Your task to perform on an android device: Is it going to rain tomorrow? Image 0: 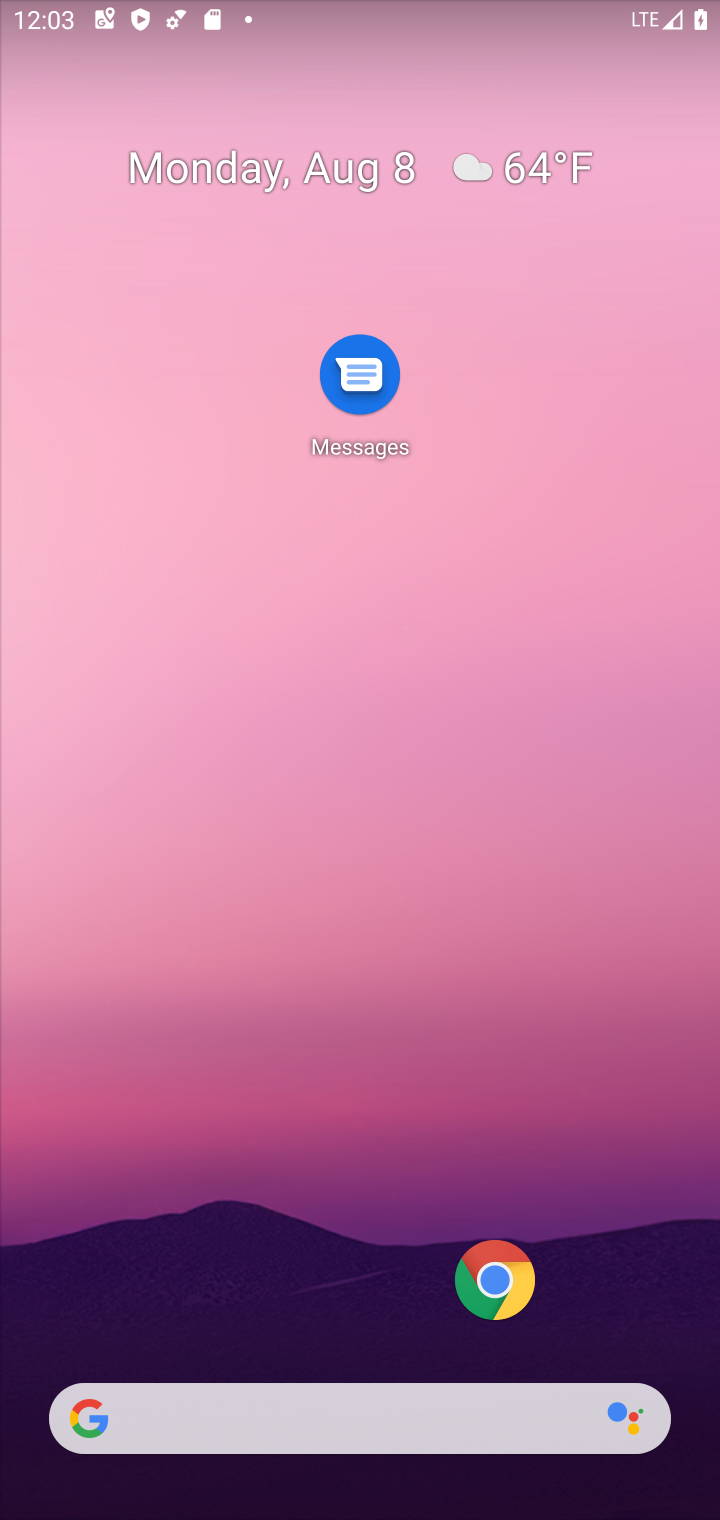
Step 0: click (267, 1378)
Your task to perform on an android device: Is it going to rain tomorrow? Image 1: 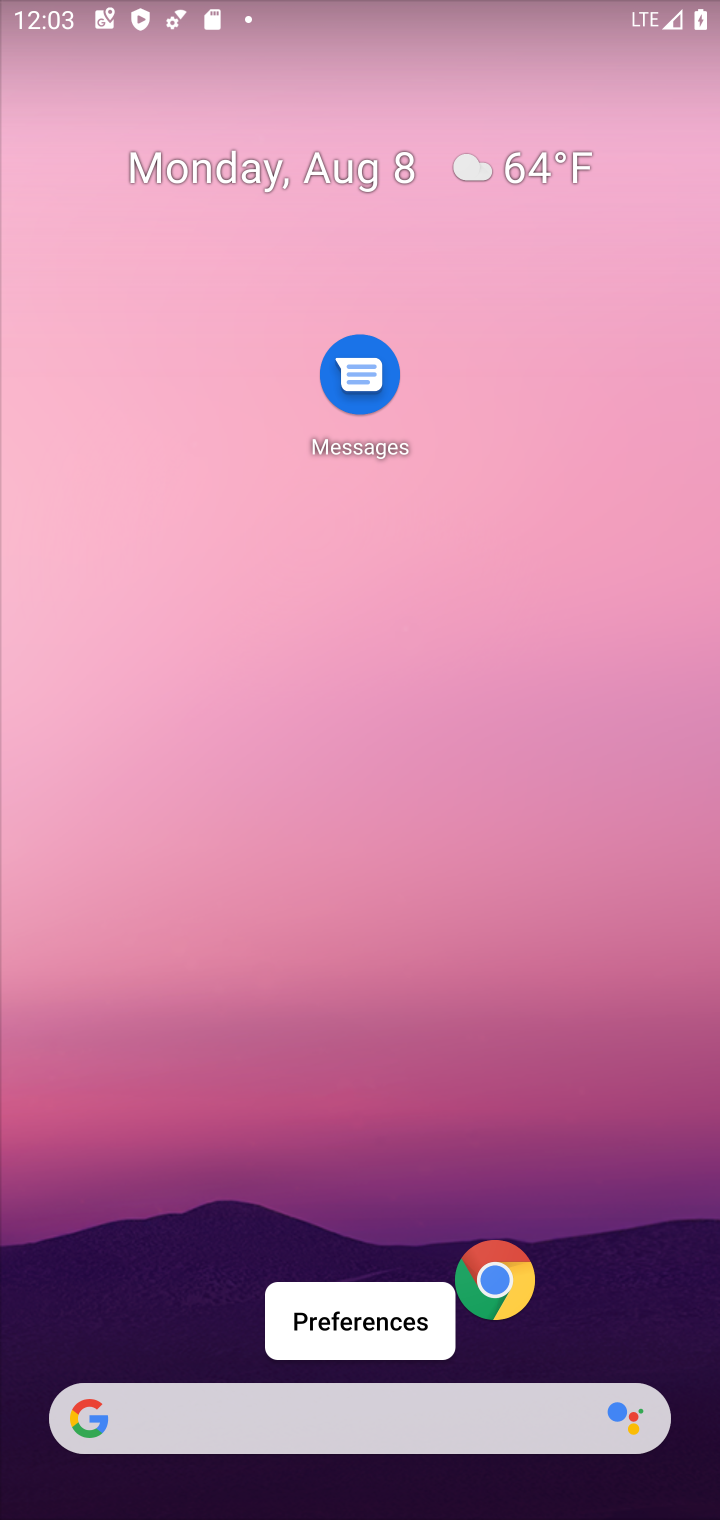
Step 1: click (331, 1447)
Your task to perform on an android device: Is it going to rain tomorrow? Image 2: 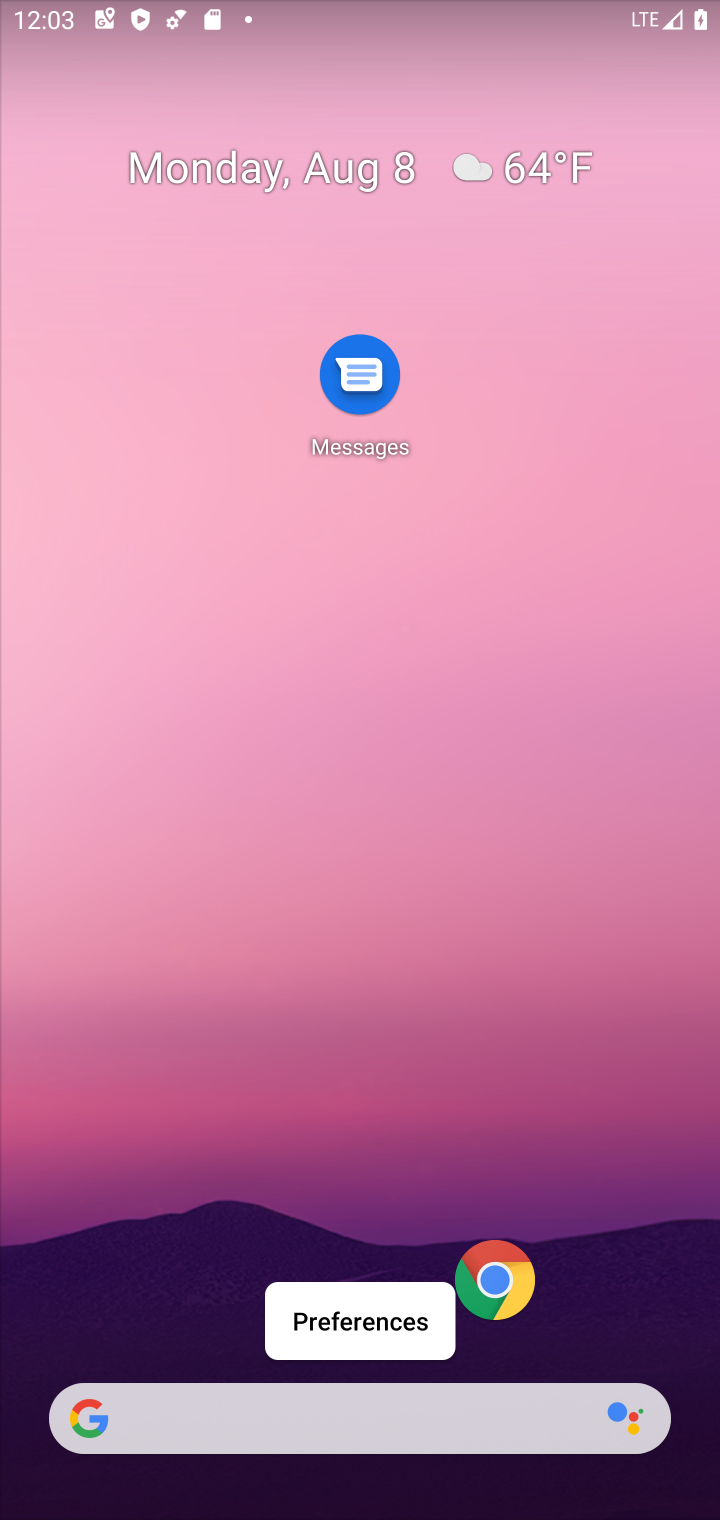
Step 2: click (419, 1479)
Your task to perform on an android device: Is it going to rain tomorrow? Image 3: 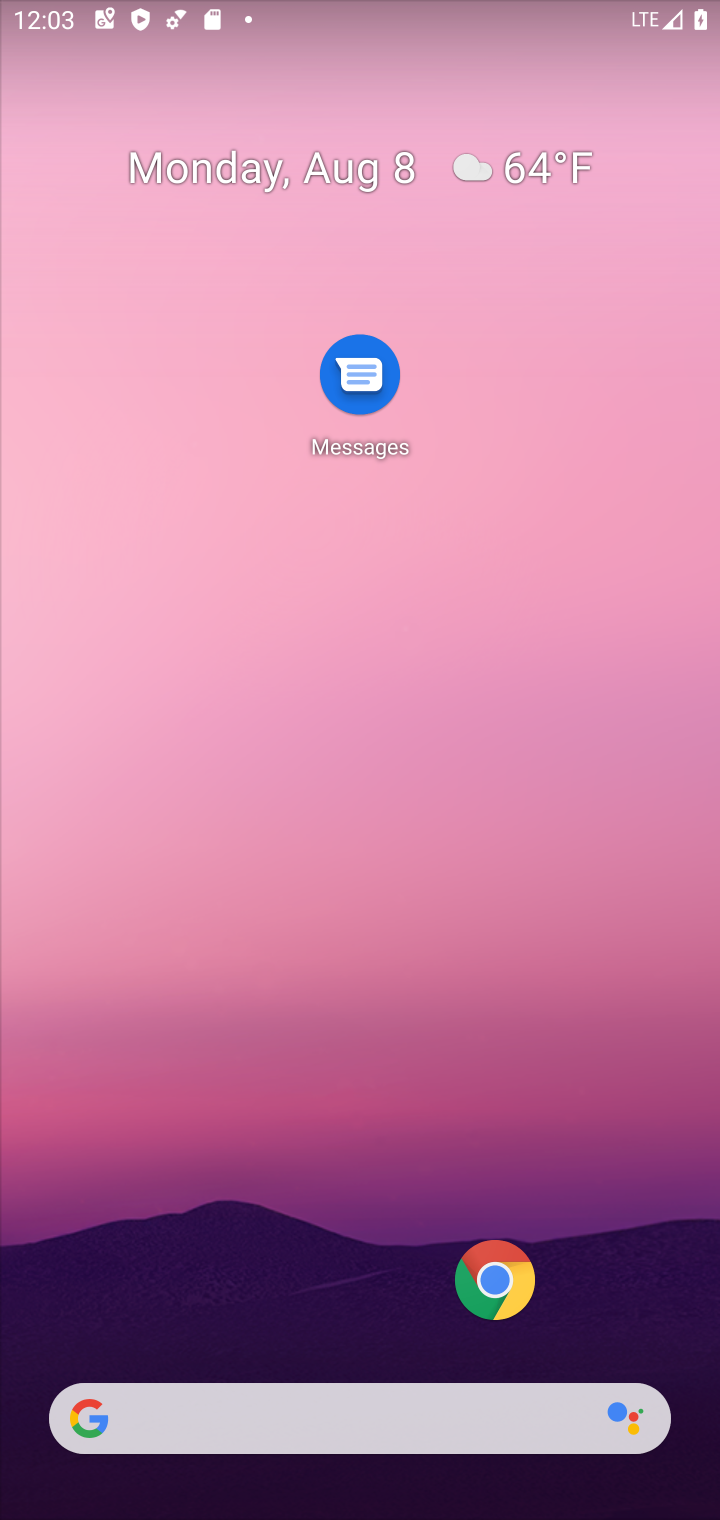
Step 3: click (259, 1429)
Your task to perform on an android device: Is it going to rain tomorrow? Image 4: 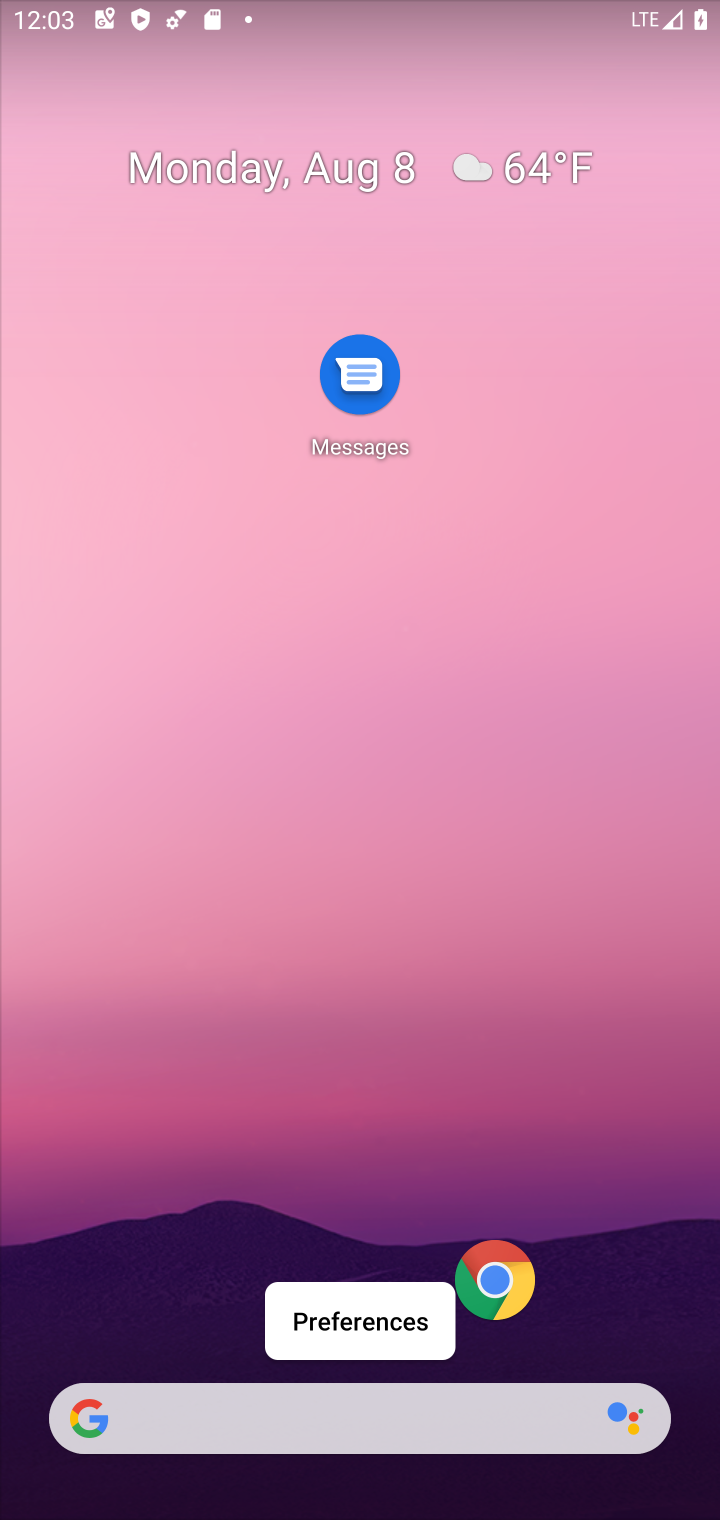
Step 4: click (216, 1442)
Your task to perform on an android device: Is it going to rain tomorrow? Image 5: 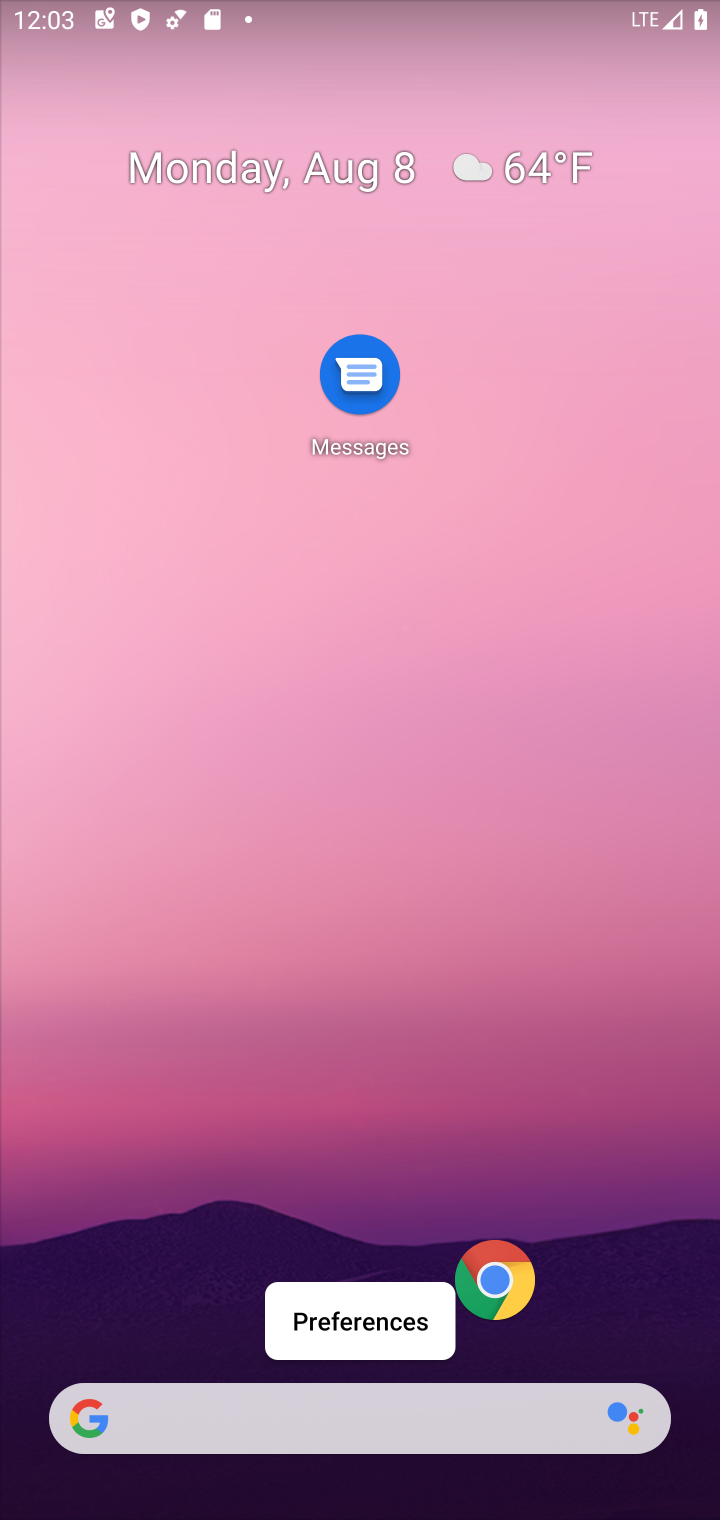
Step 5: click (457, 1426)
Your task to perform on an android device: Is it going to rain tomorrow? Image 6: 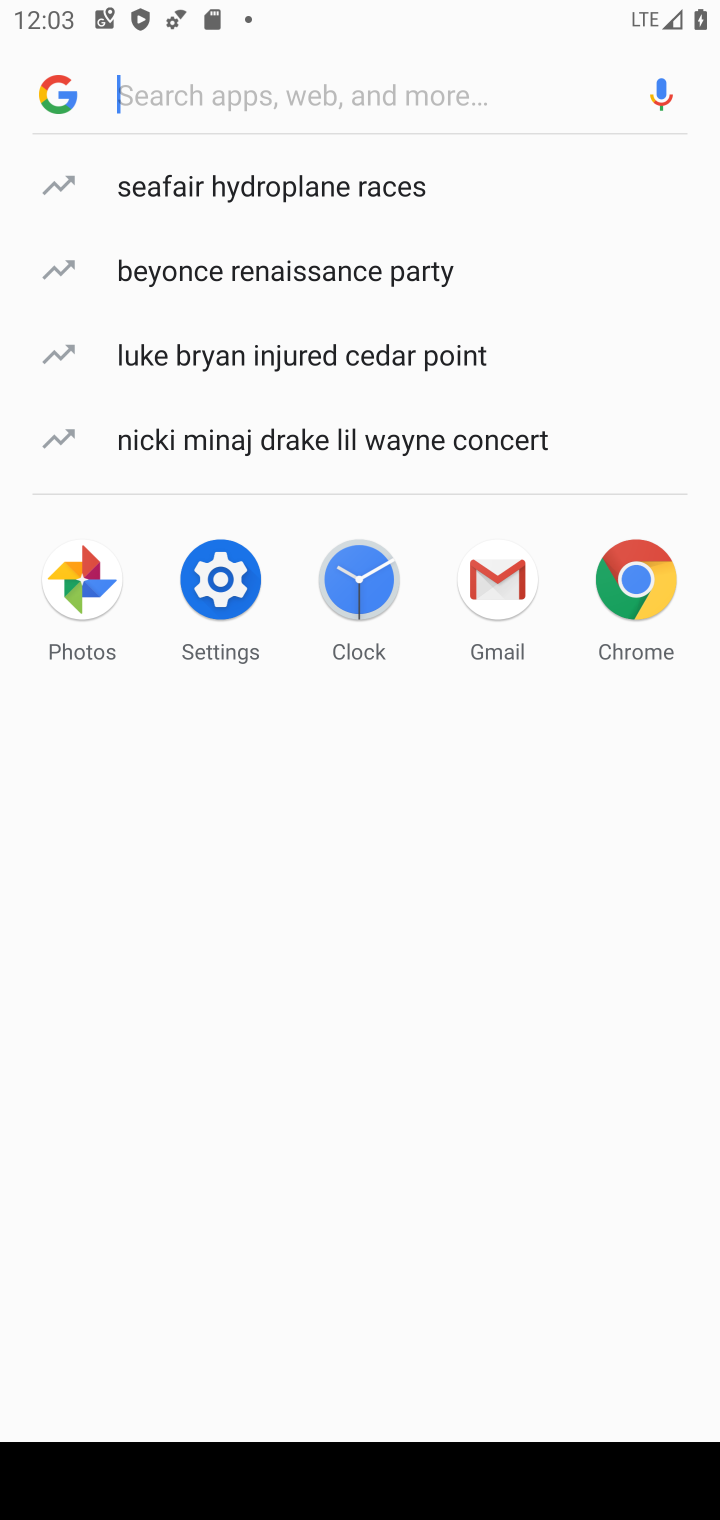
Step 6: click (202, 94)
Your task to perform on an android device: Is it going to rain tomorrow? Image 7: 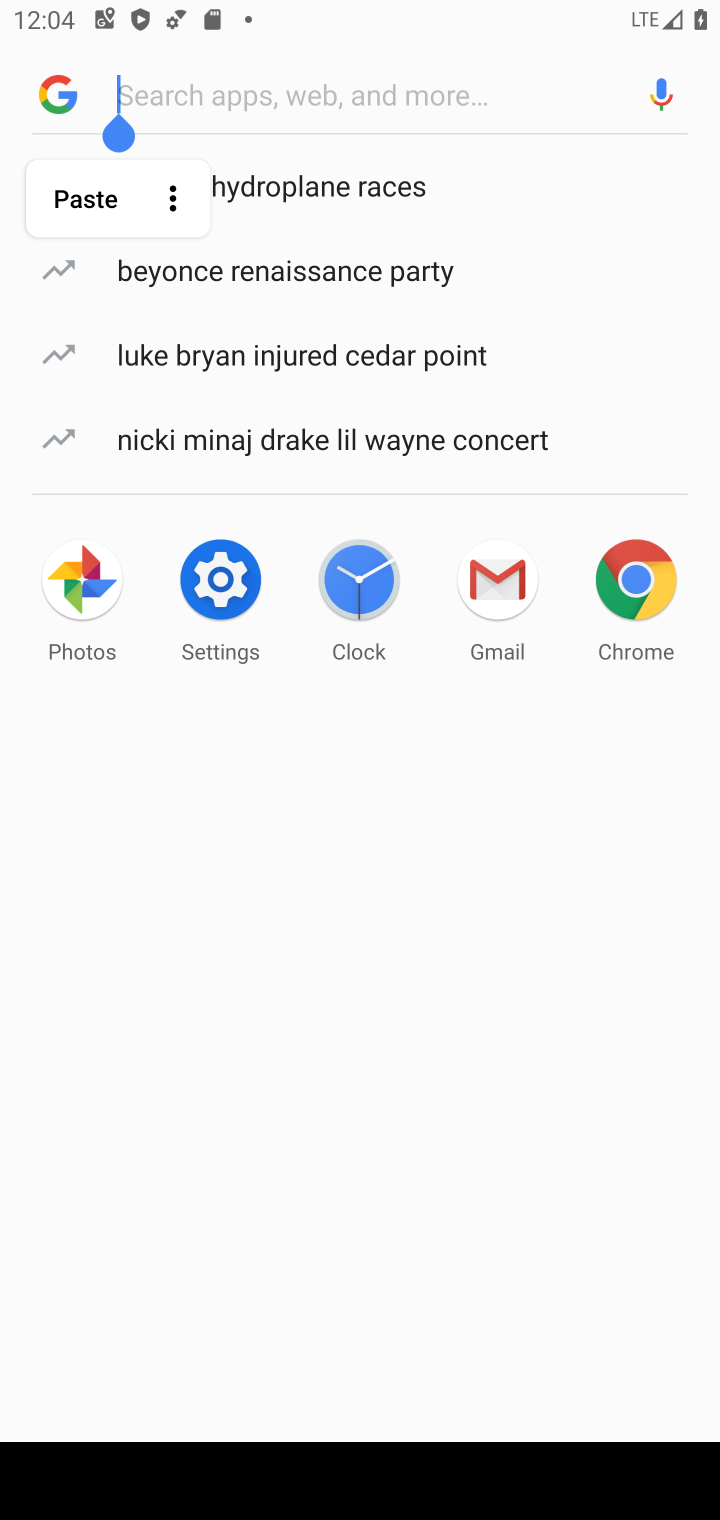
Step 7: type "weather"
Your task to perform on an android device: Is it going to rain tomorrow? Image 8: 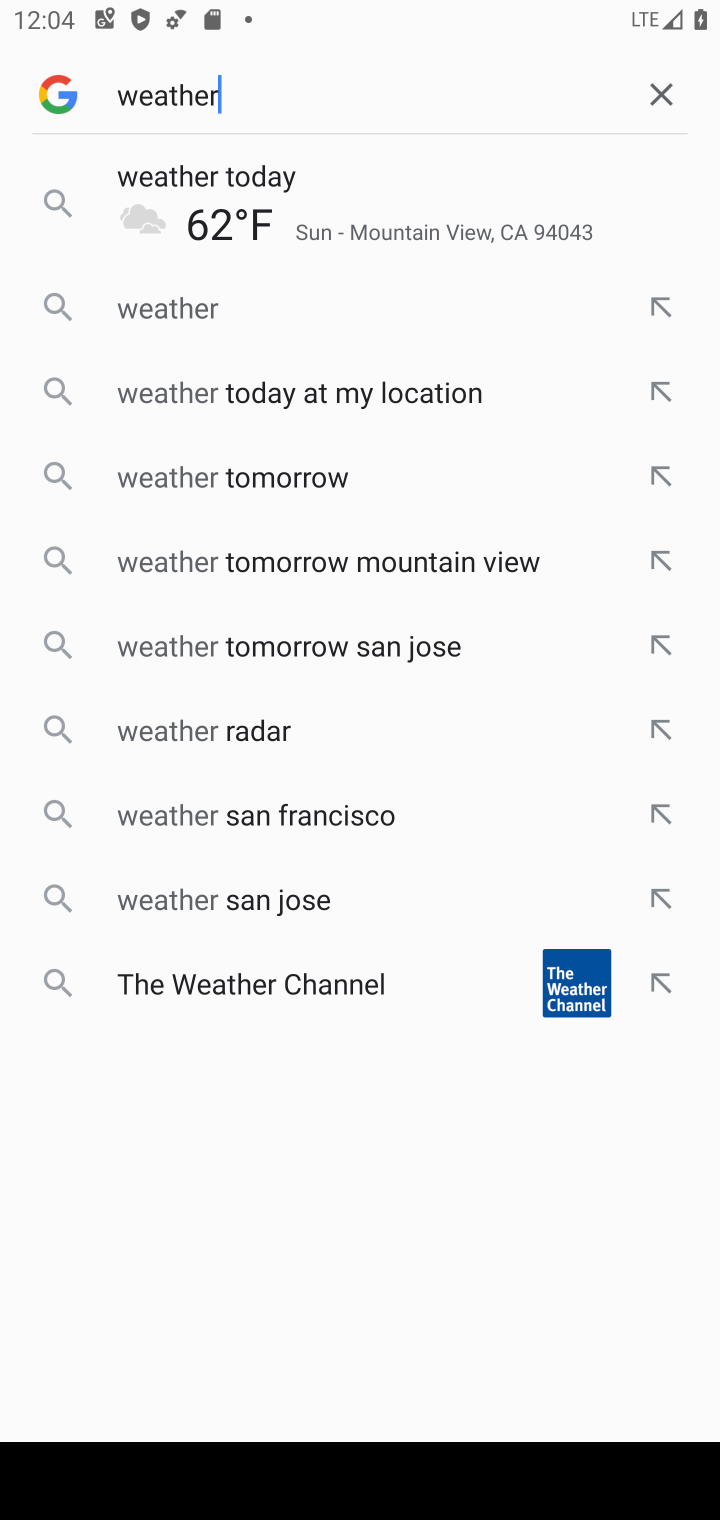
Step 8: click (370, 206)
Your task to perform on an android device: Is it going to rain tomorrow? Image 9: 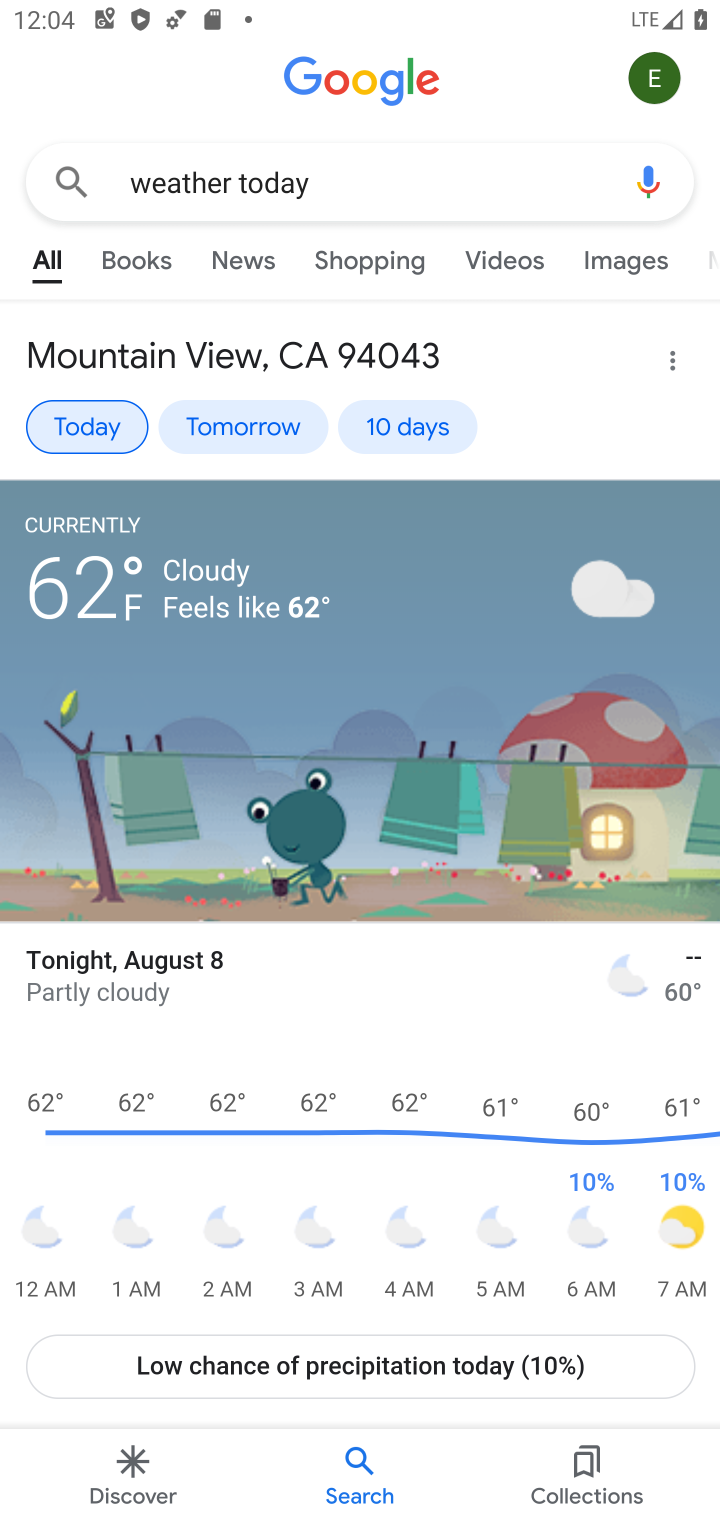
Step 9: click (230, 433)
Your task to perform on an android device: Is it going to rain tomorrow? Image 10: 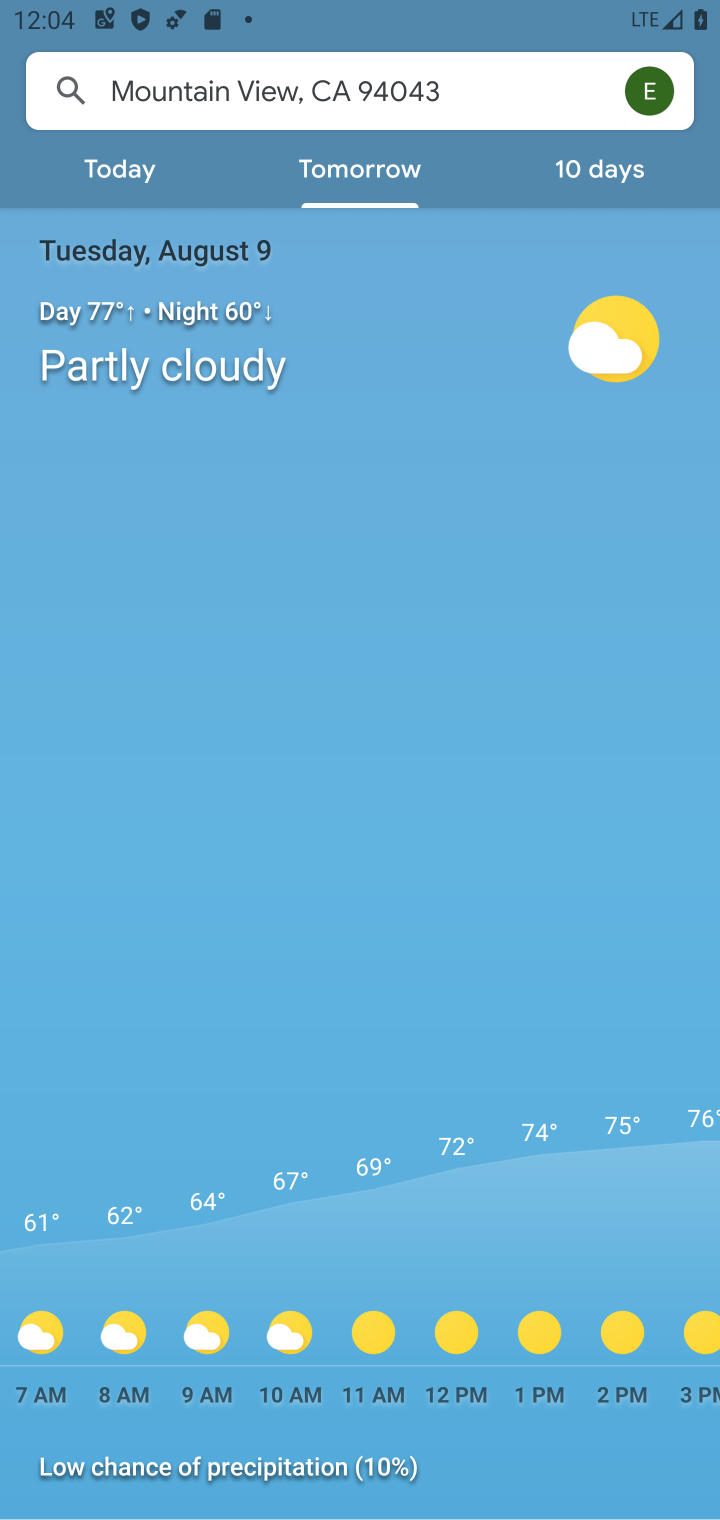
Step 10: task complete